Your task to perform on an android device: toggle javascript in the chrome app Image 0: 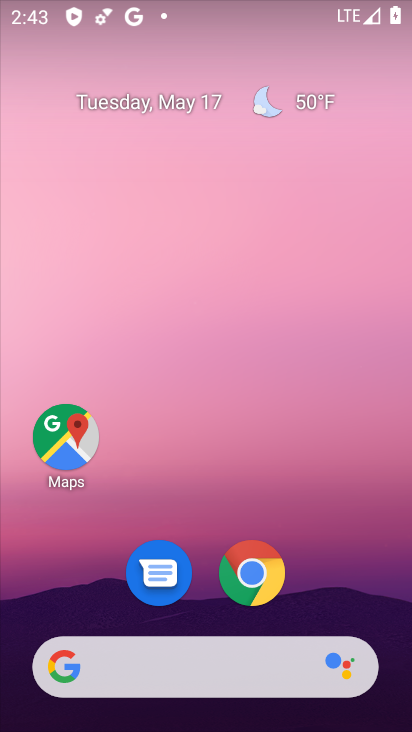
Step 0: click (254, 564)
Your task to perform on an android device: toggle javascript in the chrome app Image 1: 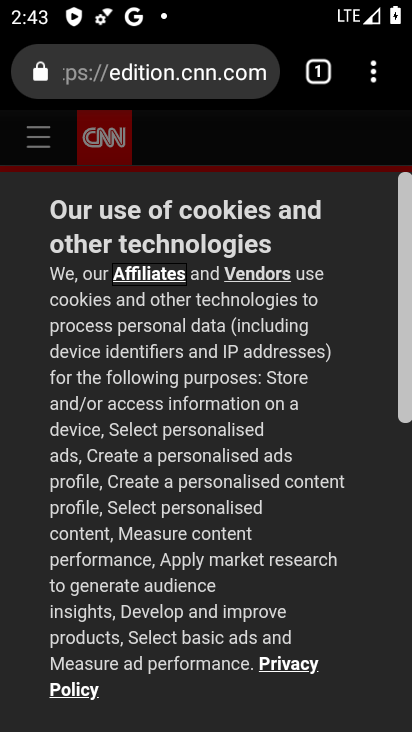
Step 1: drag from (380, 71) to (183, 574)
Your task to perform on an android device: toggle javascript in the chrome app Image 2: 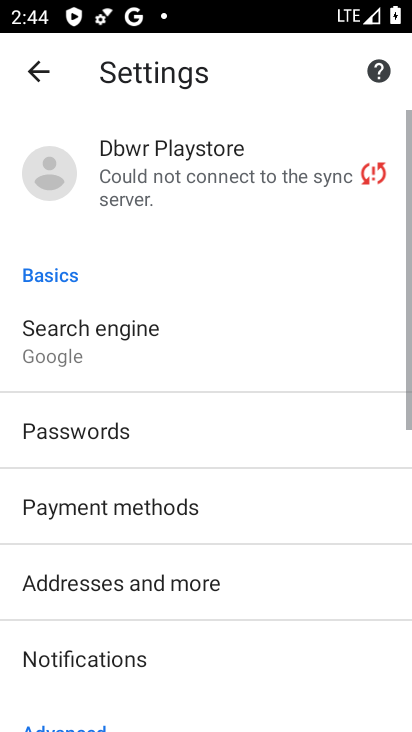
Step 2: drag from (192, 627) to (290, 191)
Your task to perform on an android device: toggle javascript in the chrome app Image 3: 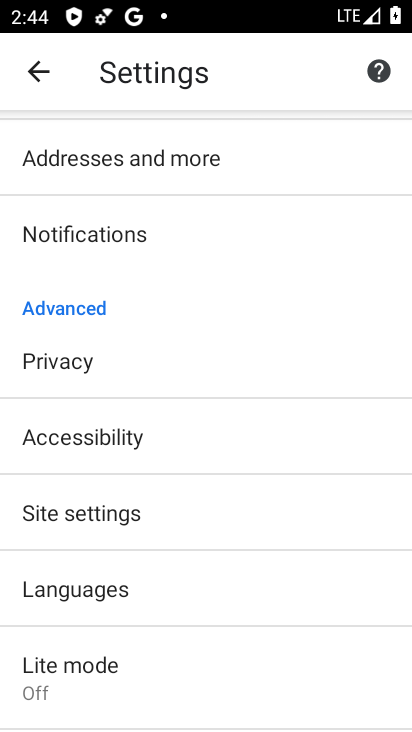
Step 3: click (159, 515)
Your task to perform on an android device: toggle javascript in the chrome app Image 4: 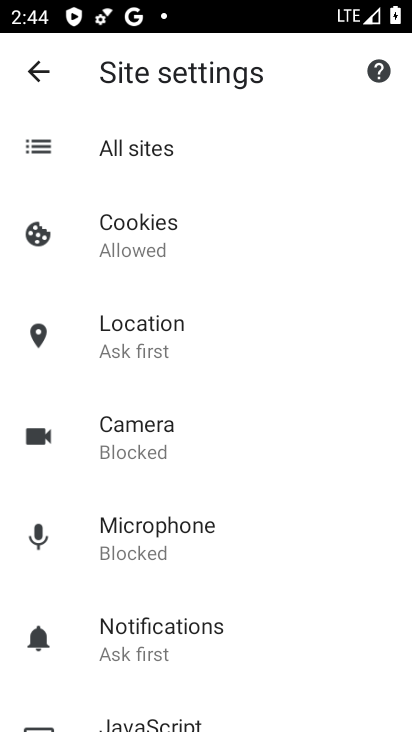
Step 4: drag from (243, 605) to (352, 228)
Your task to perform on an android device: toggle javascript in the chrome app Image 5: 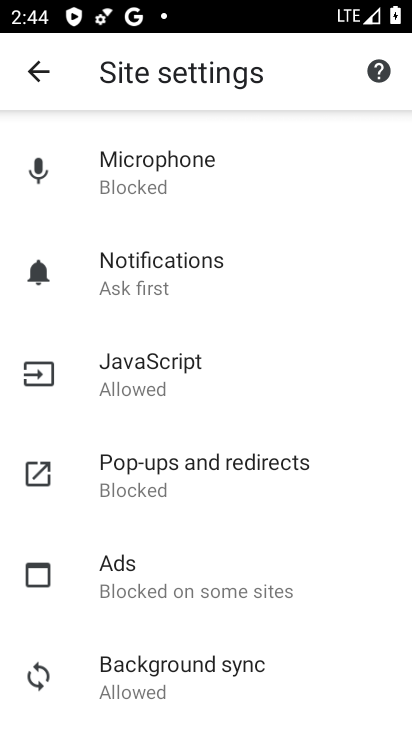
Step 5: click (187, 374)
Your task to perform on an android device: toggle javascript in the chrome app Image 6: 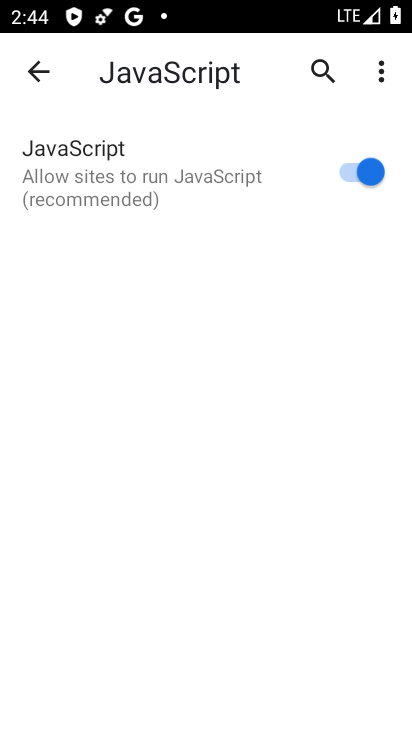
Step 6: click (373, 180)
Your task to perform on an android device: toggle javascript in the chrome app Image 7: 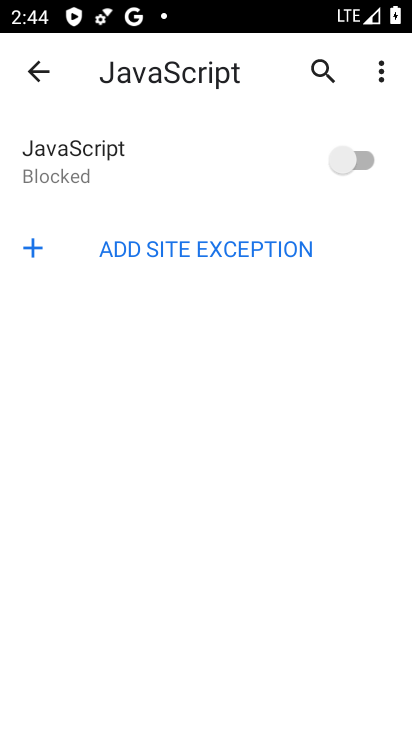
Step 7: task complete